Your task to perform on an android device: turn on wifi Image 0: 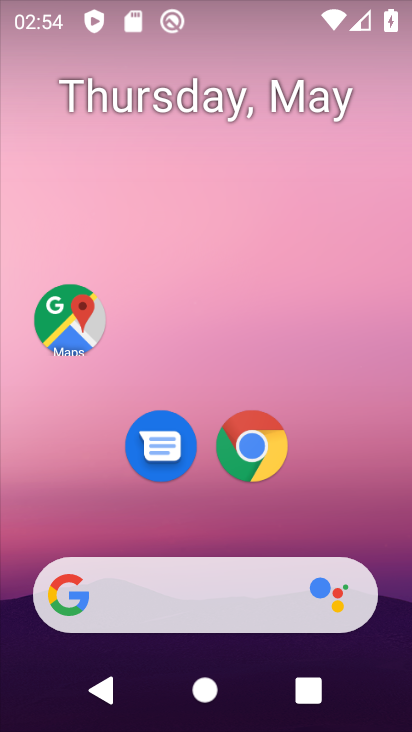
Step 0: drag from (369, 544) to (283, 15)
Your task to perform on an android device: turn on wifi Image 1: 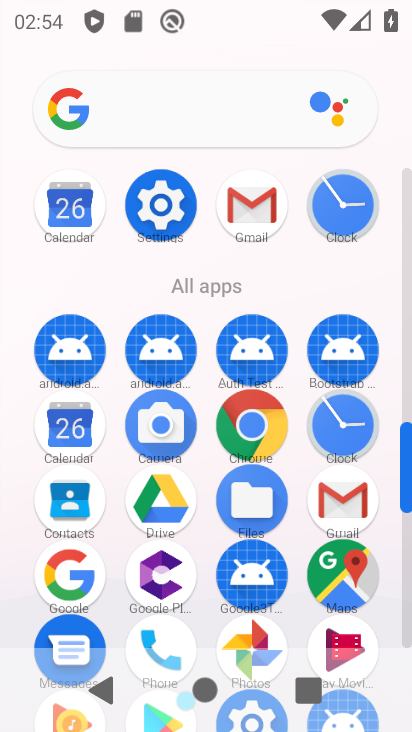
Step 1: click (153, 209)
Your task to perform on an android device: turn on wifi Image 2: 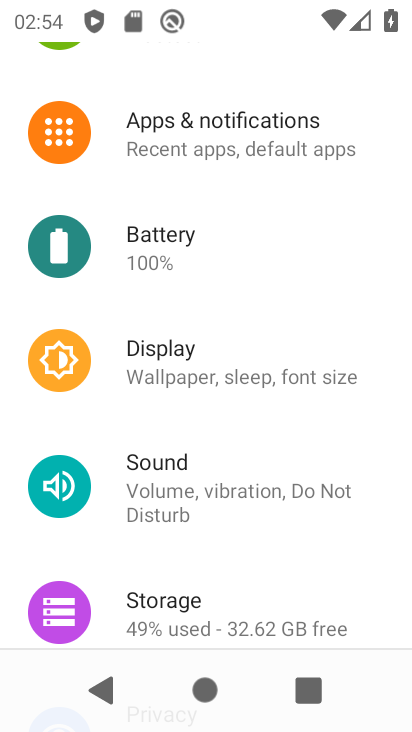
Step 2: drag from (275, 161) to (284, 435)
Your task to perform on an android device: turn on wifi Image 3: 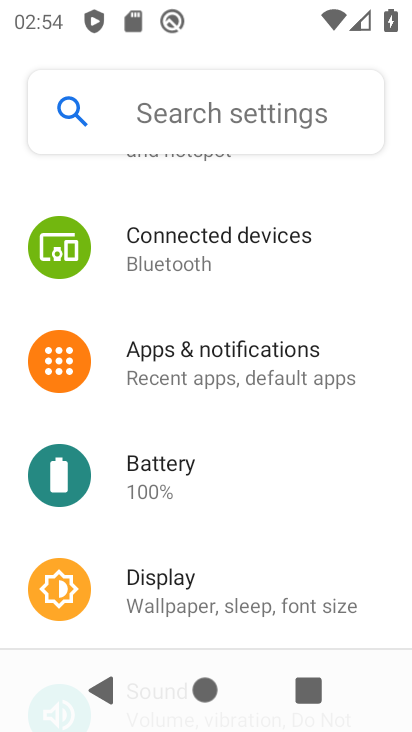
Step 3: drag from (215, 202) to (222, 460)
Your task to perform on an android device: turn on wifi Image 4: 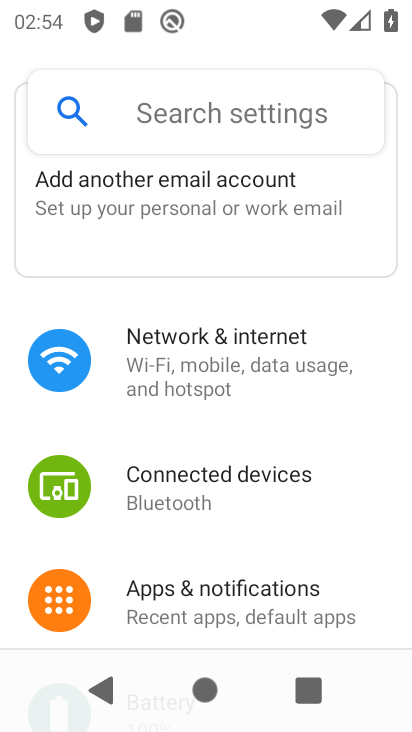
Step 4: click (179, 354)
Your task to perform on an android device: turn on wifi Image 5: 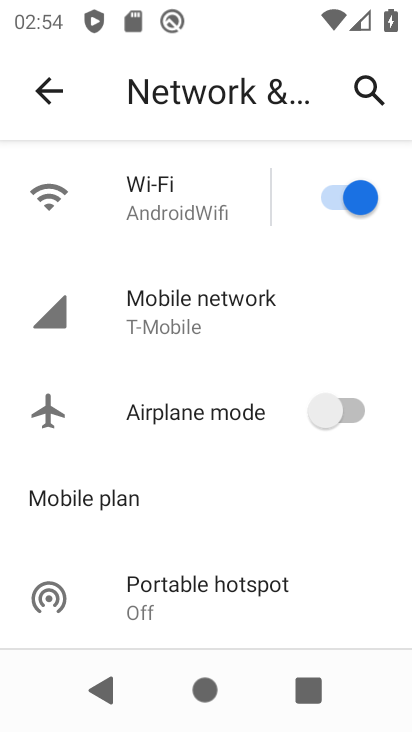
Step 5: task complete